Your task to perform on an android device: Go to Yahoo.com Image 0: 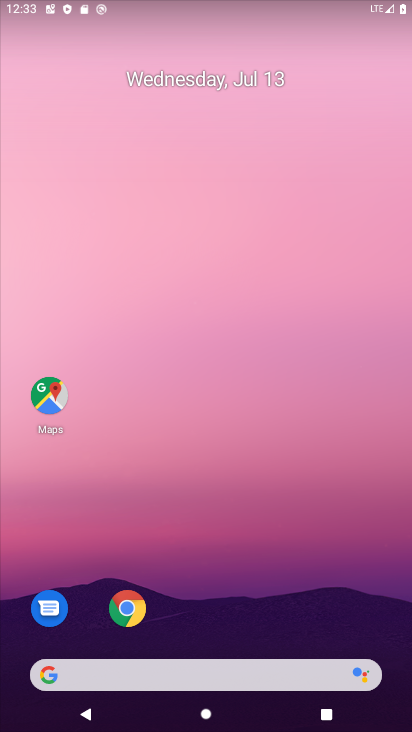
Step 0: click (129, 614)
Your task to perform on an android device: Go to Yahoo.com Image 1: 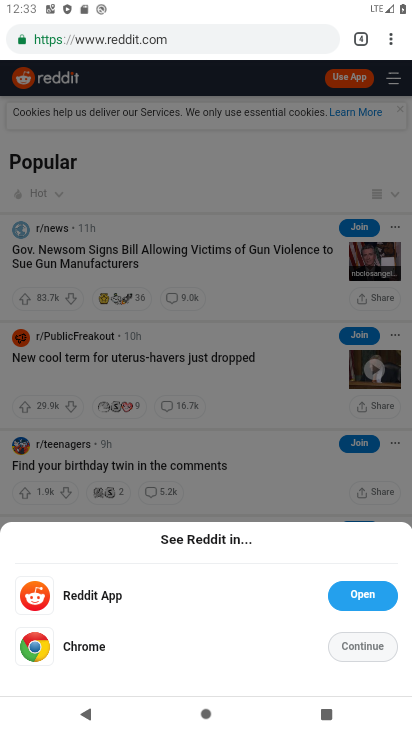
Step 1: click (359, 32)
Your task to perform on an android device: Go to Yahoo.com Image 2: 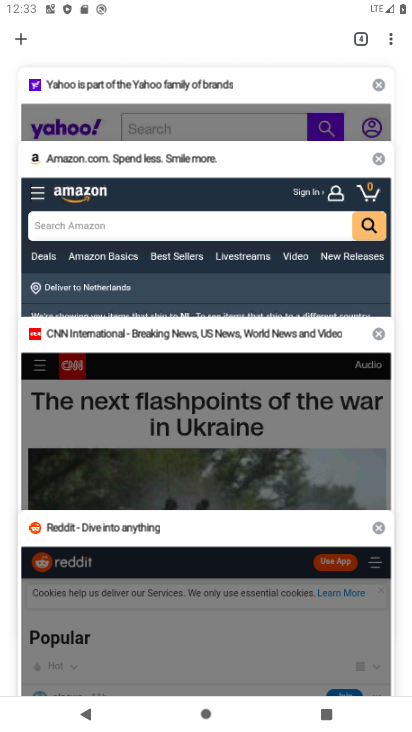
Step 2: click (107, 92)
Your task to perform on an android device: Go to Yahoo.com Image 3: 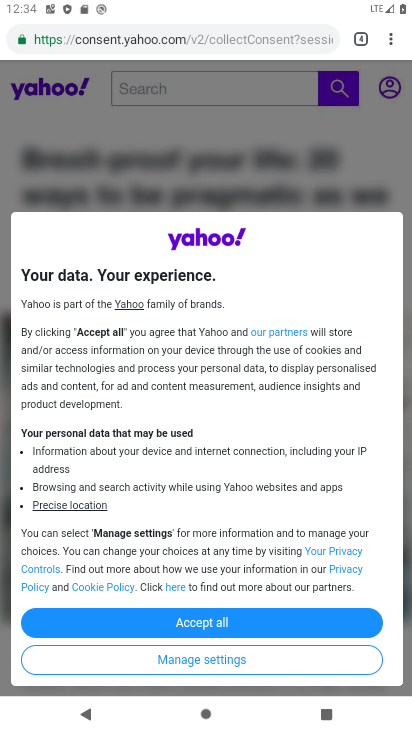
Step 3: task complete